Your task to perform on an android device: set an alarm Image 0: 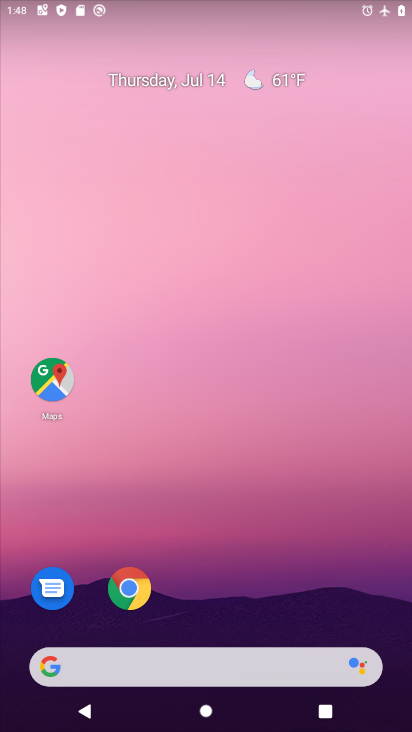
Step 0: drag from (198, 579) to (188, 417)
Your task to perform on an android device: set an alarm Image 1: 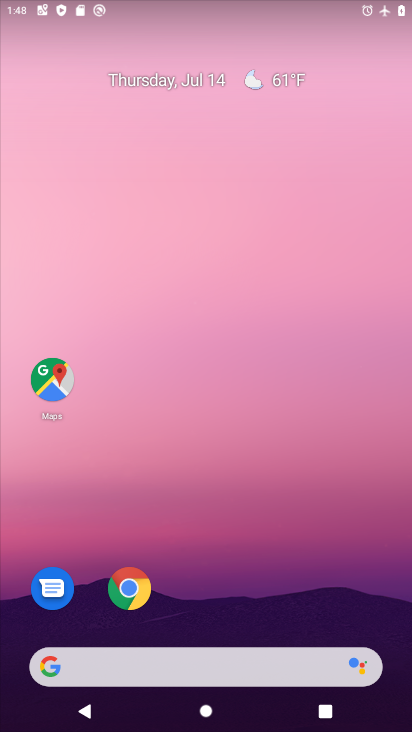
Step 1: drag from (275, 599) to (259, 213)
Your task to perform on an android device: set an alarm Image 2: 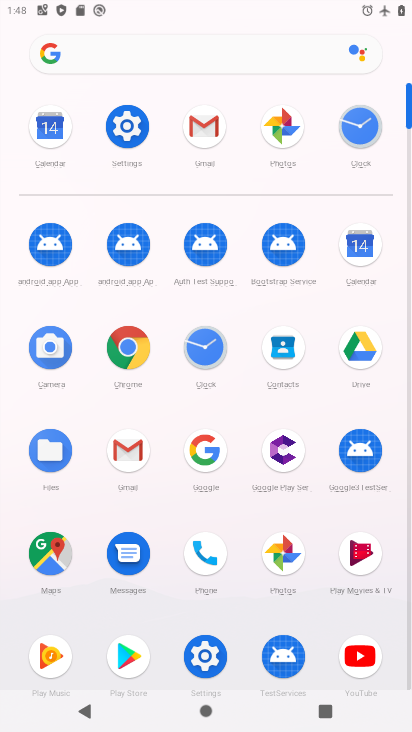
Step 2: click (208, 339)
Your task to perform on an android device: set an alarm Image 3: 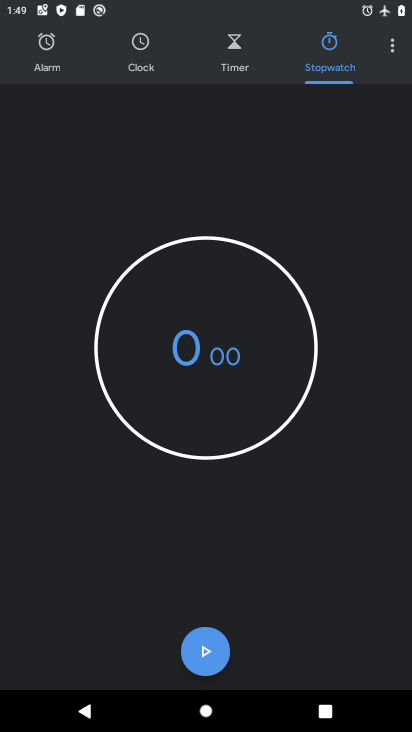
Step 3: click (50, 75)
Your task to perform on an android device: set an alarm Image 4: 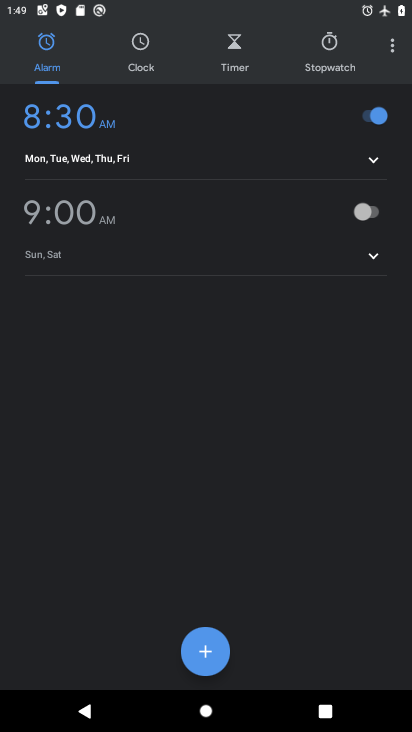
Step 4: task complete